Your task to perform on an android device: turn notification dots on Image 0: 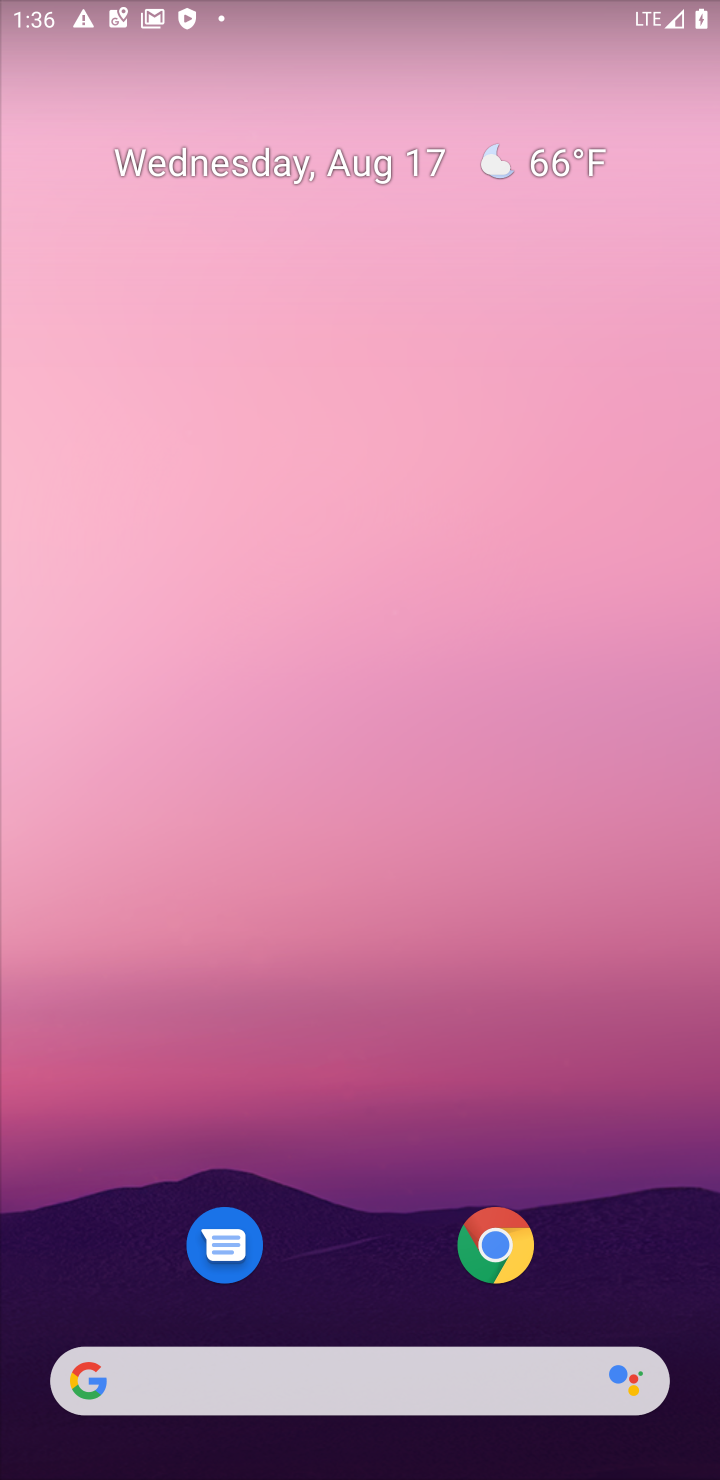
Step 0: drag from (371, 948) to (354, 220)
Your task to perform on an android device: turn notification dots on Image 1: 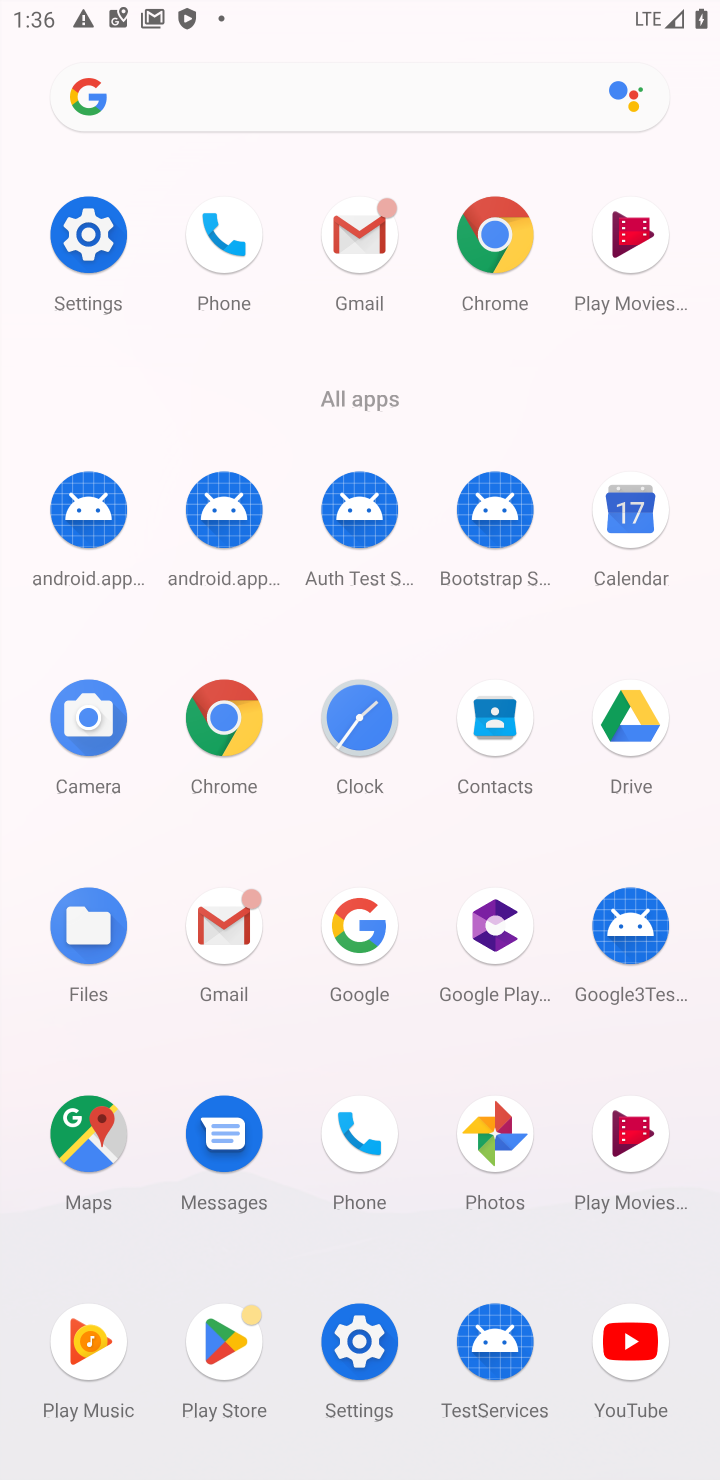
Step 1: click (93, 236)
Your task to perform on an android device: turn notification dots on Image 2: 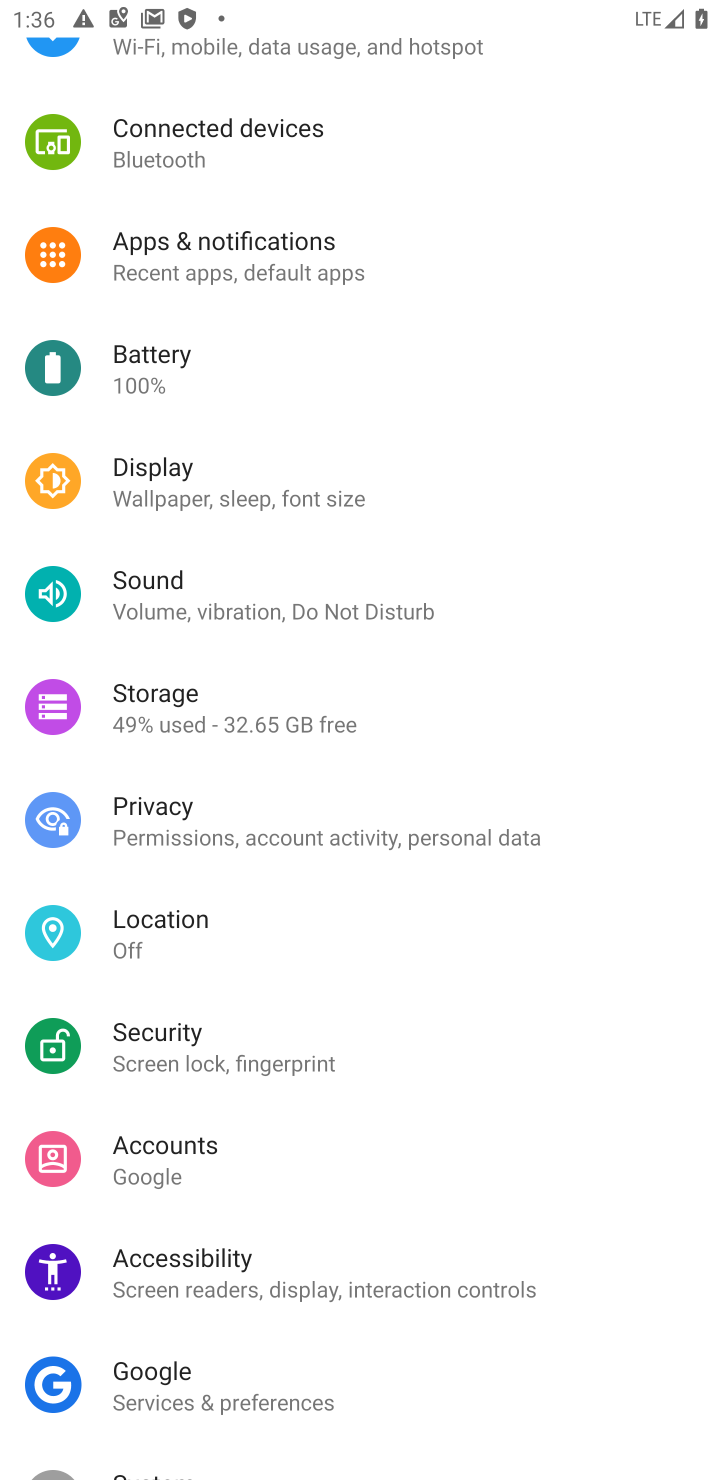
Step 2: click (285, 242)
Your task to perform on an android device: turn notification dots on Image 3: 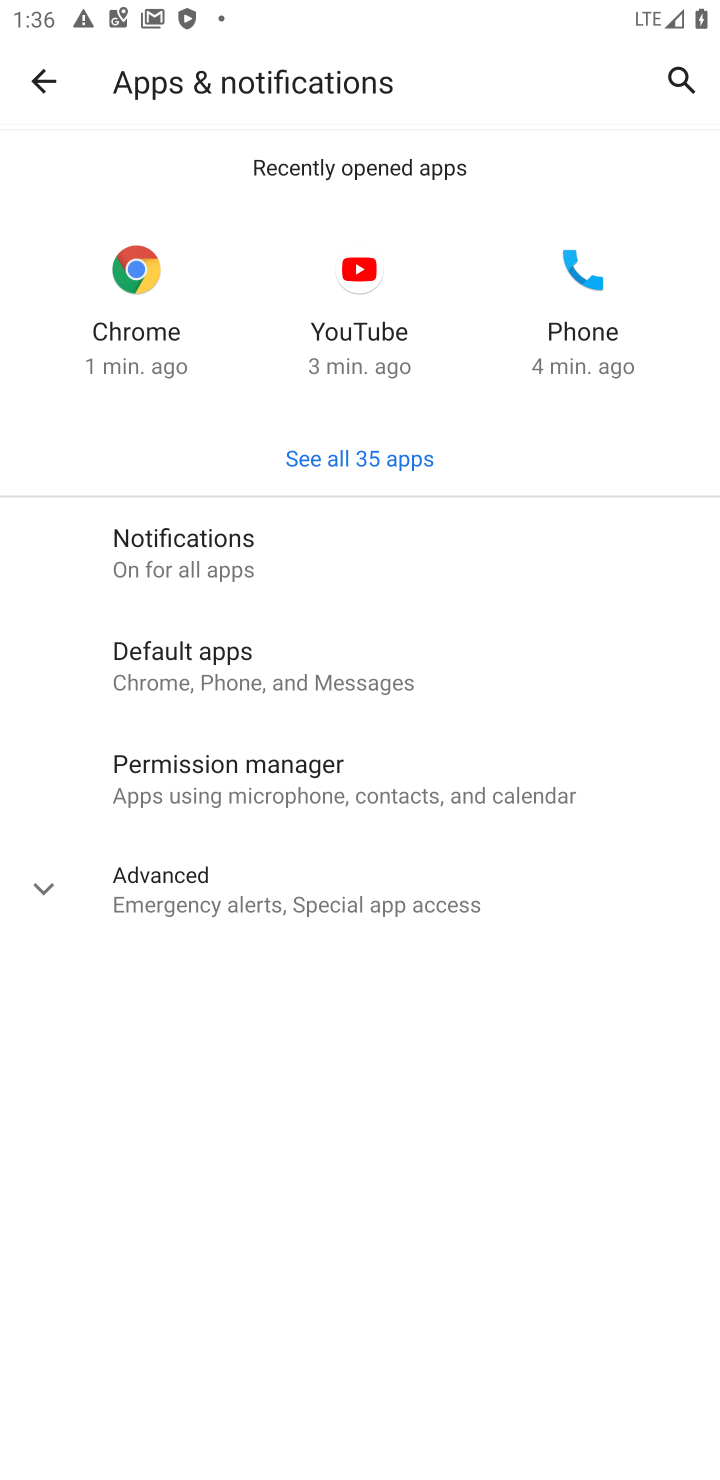
Step 3: click (198, 552)
Your task to perform on an android device: turn notification dots on Image 4: 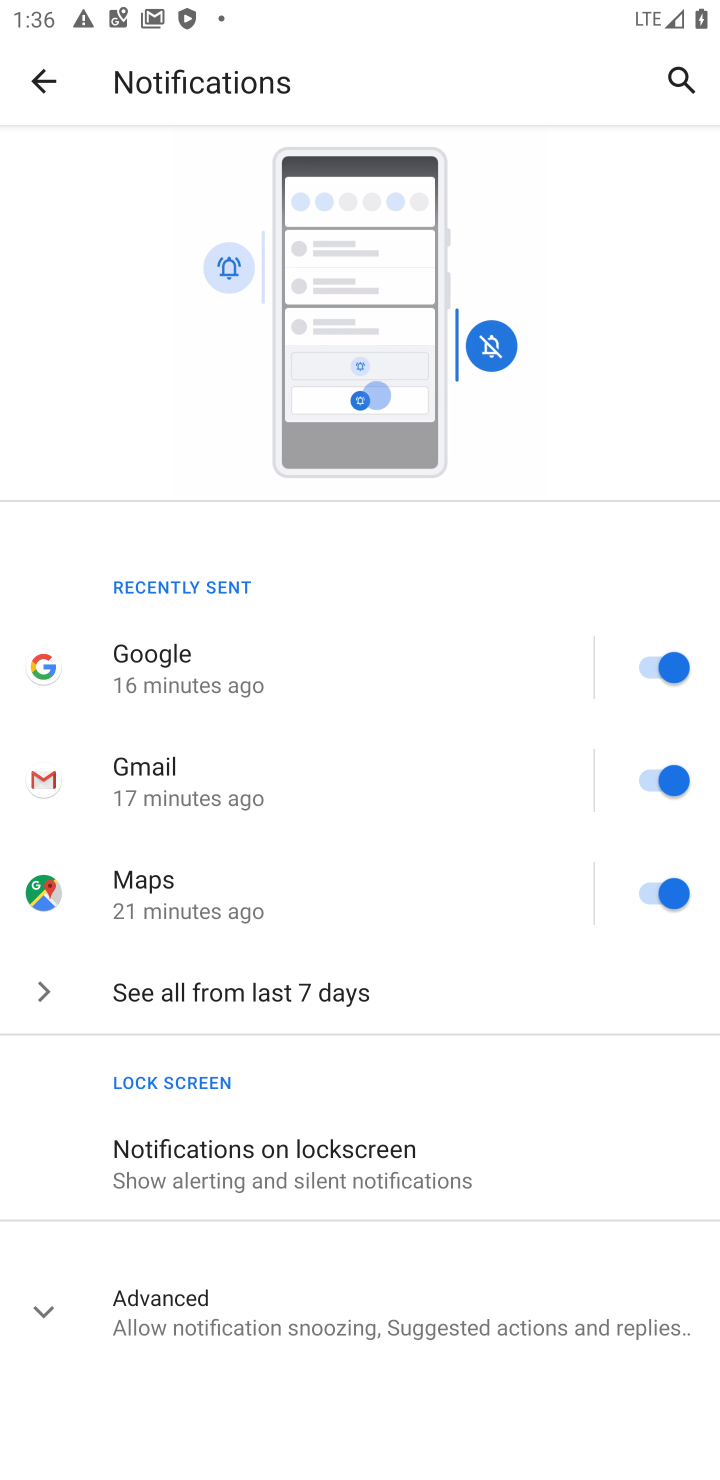
Step 4: click (185, 1322)
Your task to perform on an android device: turn notification dots on Image 5: 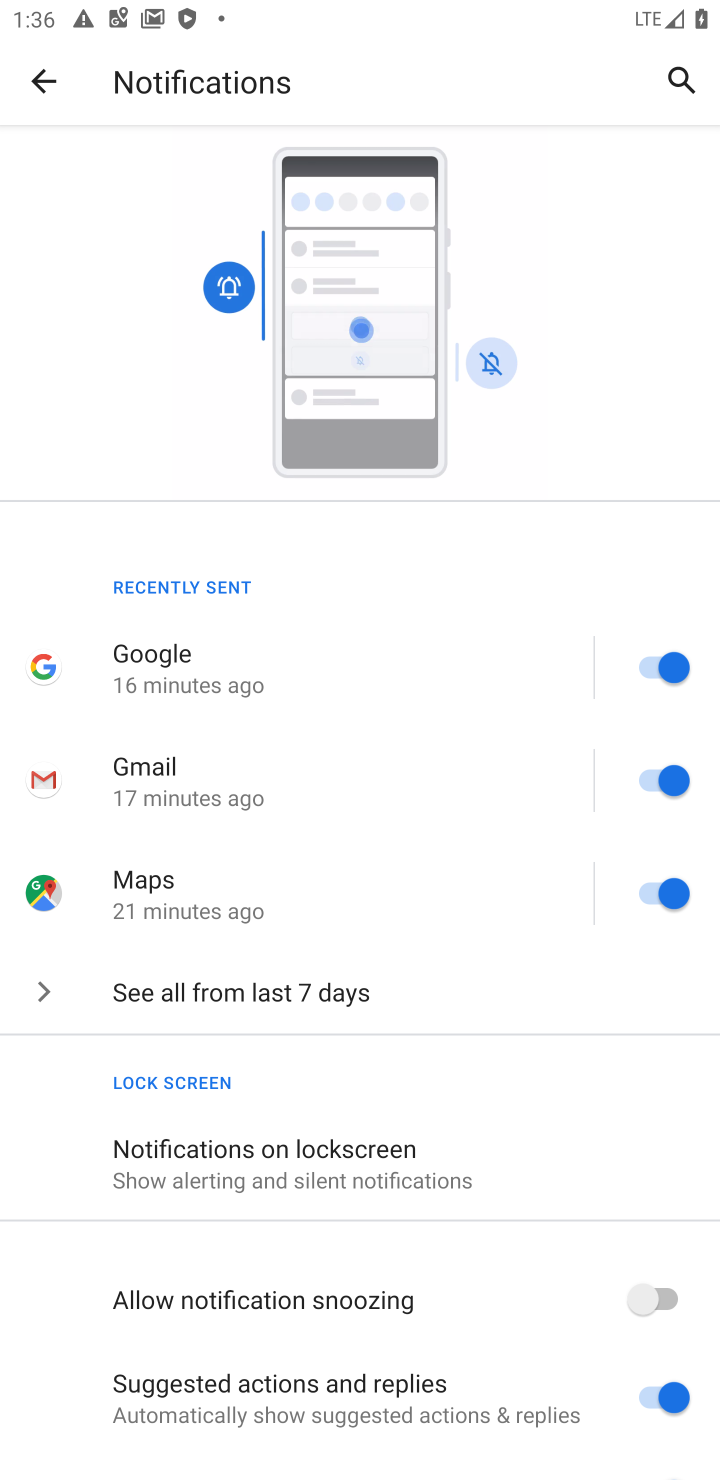
Step 5: task complete